Your task to perform on an android device: Open Wikipedia Image 0: 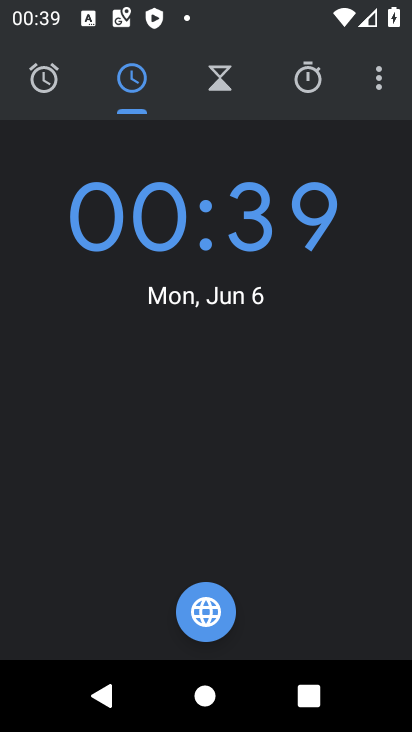
Step 0: press home button
Your task to perform on an android device: Open Wikipedia Image 1: 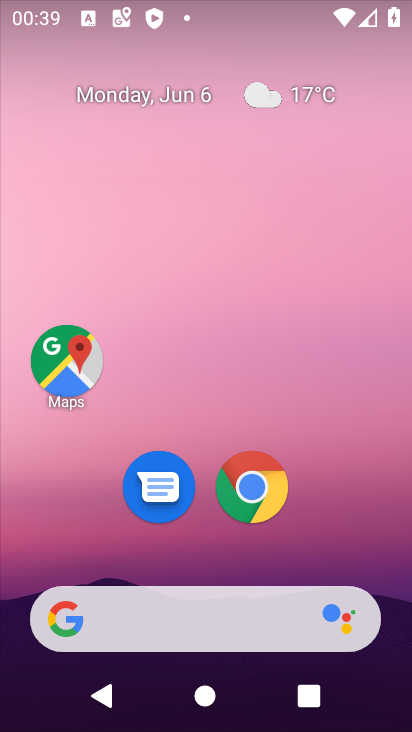
Step 1: click (256, 491)
Your task to perform on an android device: Open Wikipedia Image 2: 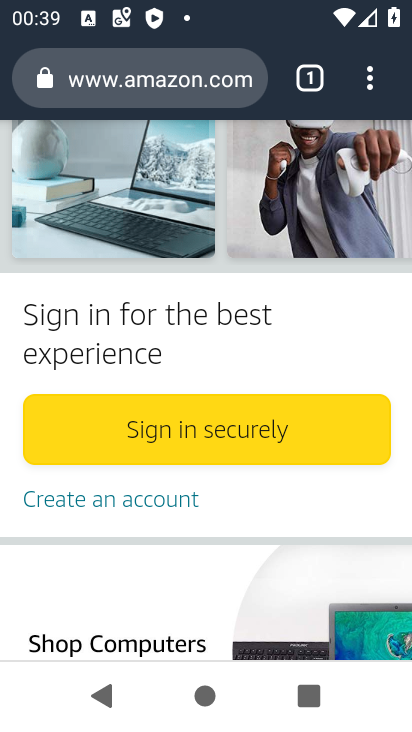
Step 2: click (209, 58)
Your task to perform on an android device: Open Wikipedia Image 3: 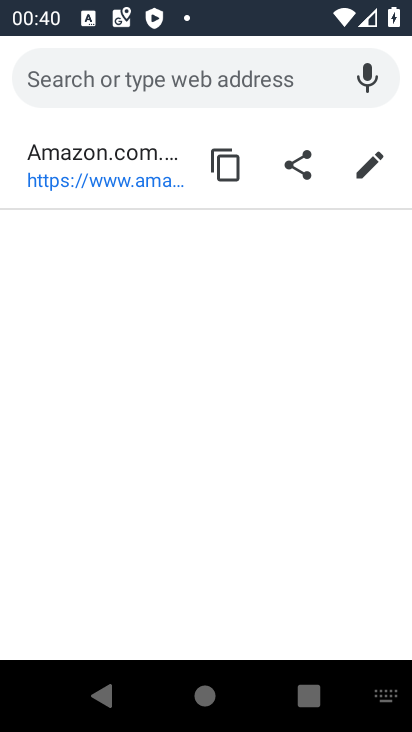
Step 3: type "wikipedia"
Your task to perform on an android device: Open Wikipedia Image 4: 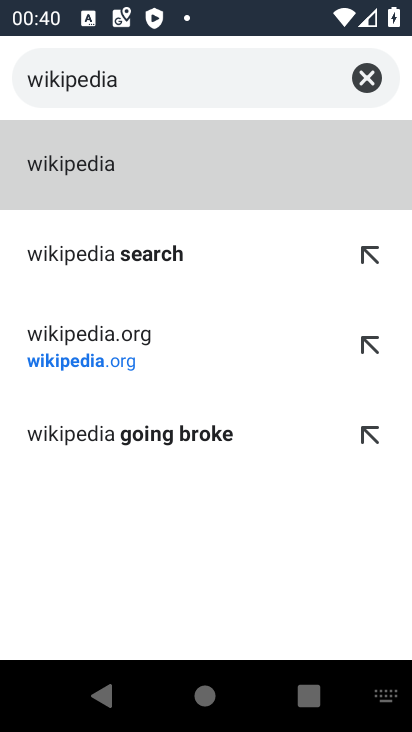
Step 4: click (85, 161)
Your task to perform on an android device: Open Wikipedia Image 5: 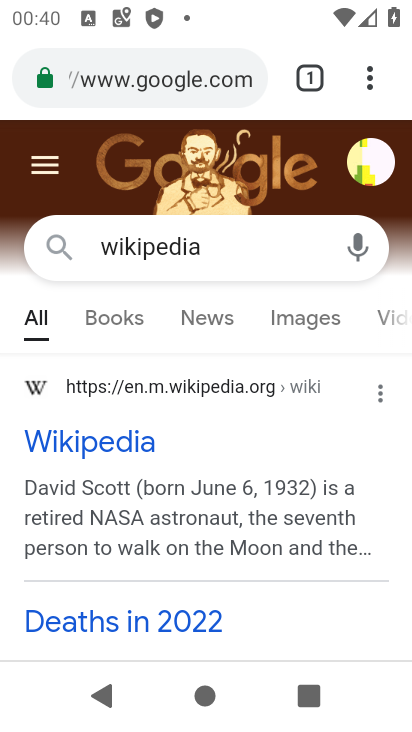
Step 5: click (103, 421)
Your task to perform on an android device: Open Wikipedia Image 6: 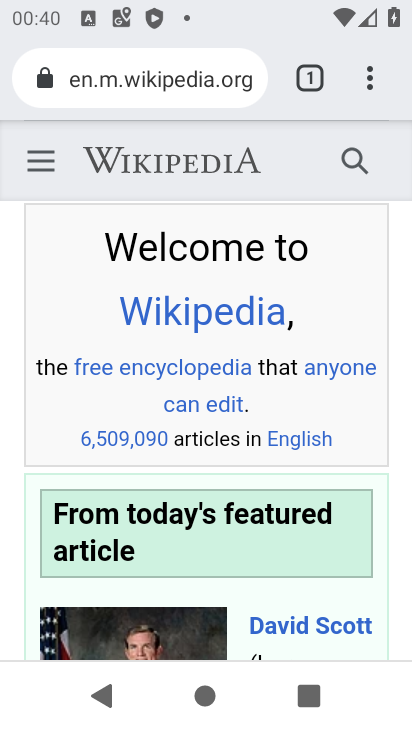
Step 6: task complete